Your task to perform on an android device: Play the last video I watched on Youtube Image 0: 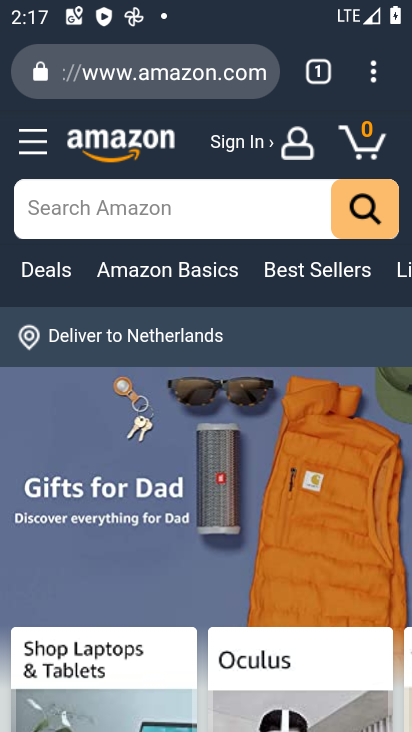
Step 0: press home button
Your task to perform on an android device: Play the last video I watched on Youtube Image 1: 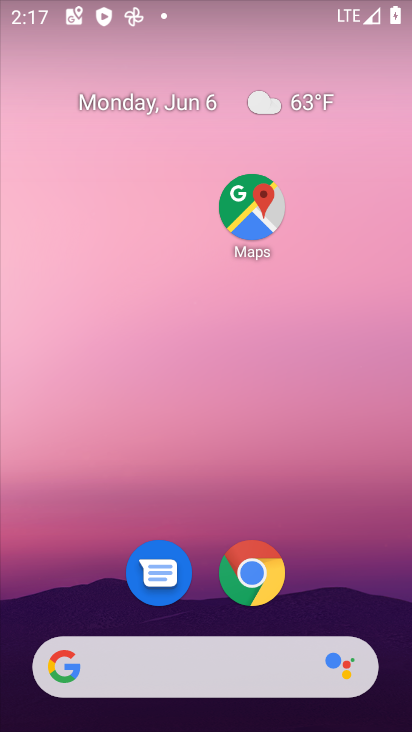
Step 1: drag from (13, 607) to (246, 115)
Your task to perform on an android device: Play the last video I watched on Youtube Image 2: 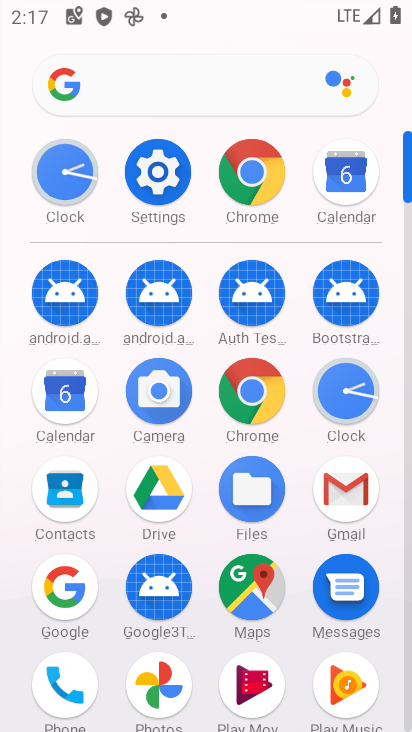
Step 2: drag from (36, 601) to (243, 214)
Your task to perform on an android device: Play the last video I watched on Youtube Image 3: 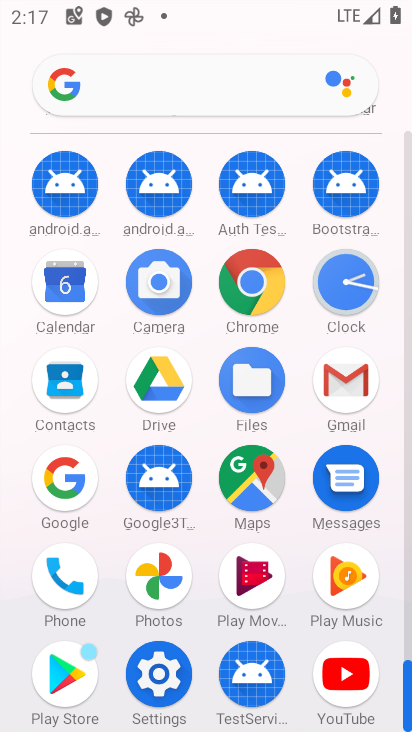
Step 3: click (331, 683)
Your task to perform on an android device: Play the last video I watched on Youtube Image 4: 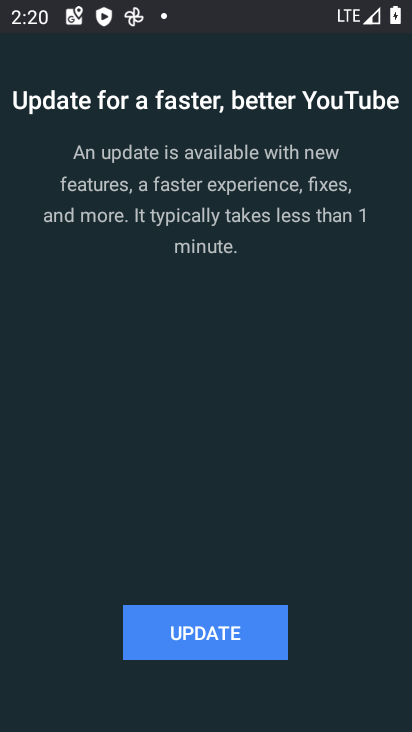
Step 4: click (236, 648)
Your task to perform on an android device: Play the last video I watched on Youtube Image 5: 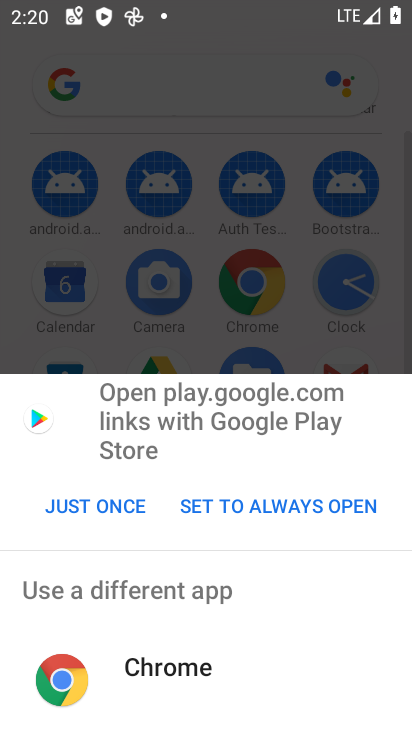
Step 5: click (101, 509)
Your task to perform on an android device: Play the last video I watched on Youtube Image 6: 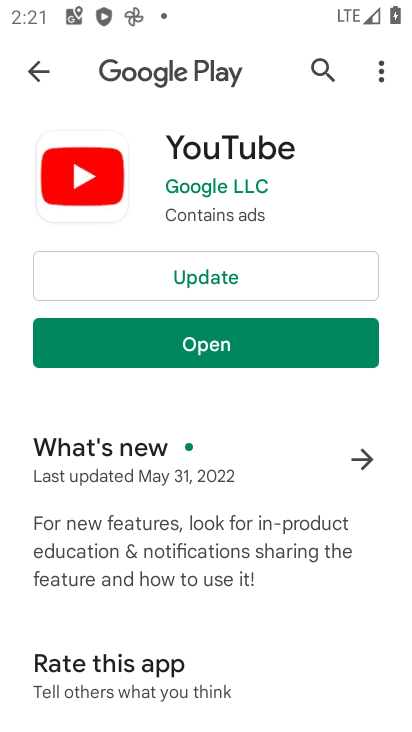
Step 6: click (268, 290)
Your task to perform on an android device: Play the last video I watched on Youtube Image 7: 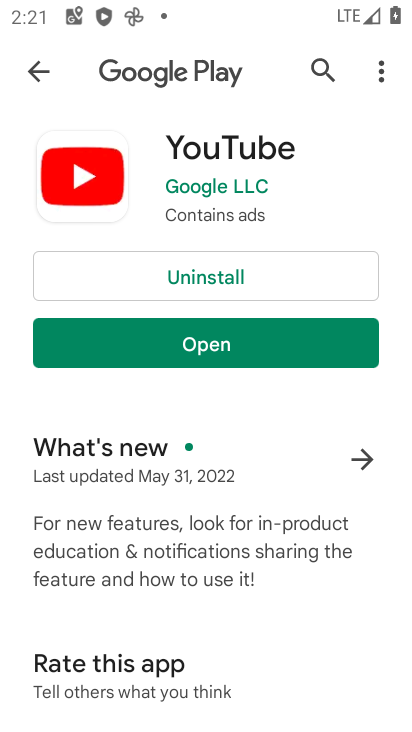
Step 7: click (250, 346)
Your task to perform on an android device: Play the last video I watched on Youtube Image 8: 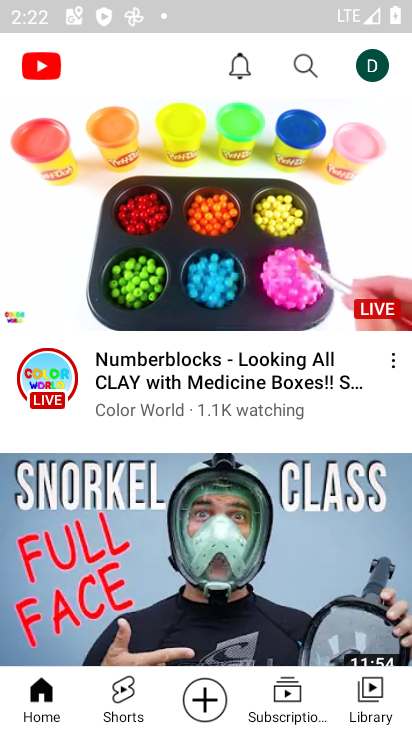
Step 8: click (377, 718)
Your task to perform on an android device: Play the last video I watched on Youtube Image 9: 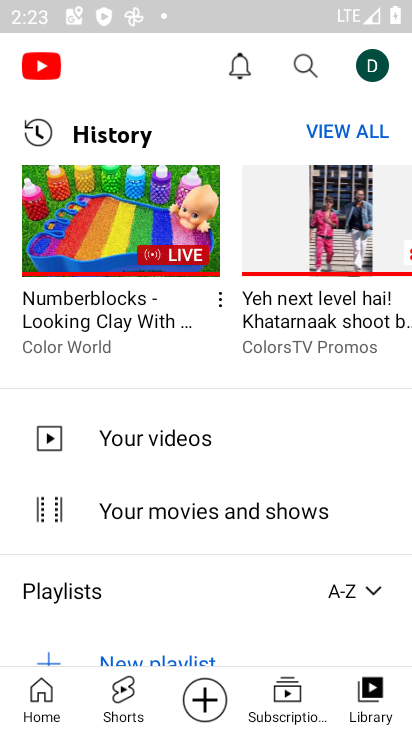
Step 9: click (163, 255)
Your task to perform on an android device: Play the last video I watched on Youtube Image 10: 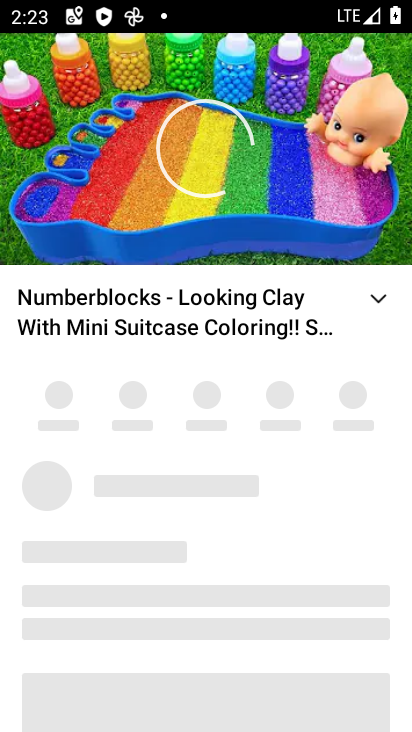
Step 10: task complete